Your task to perform on an android device: open app "Microsoft Excel" (install if not already installed) and go to login screen Image 0: 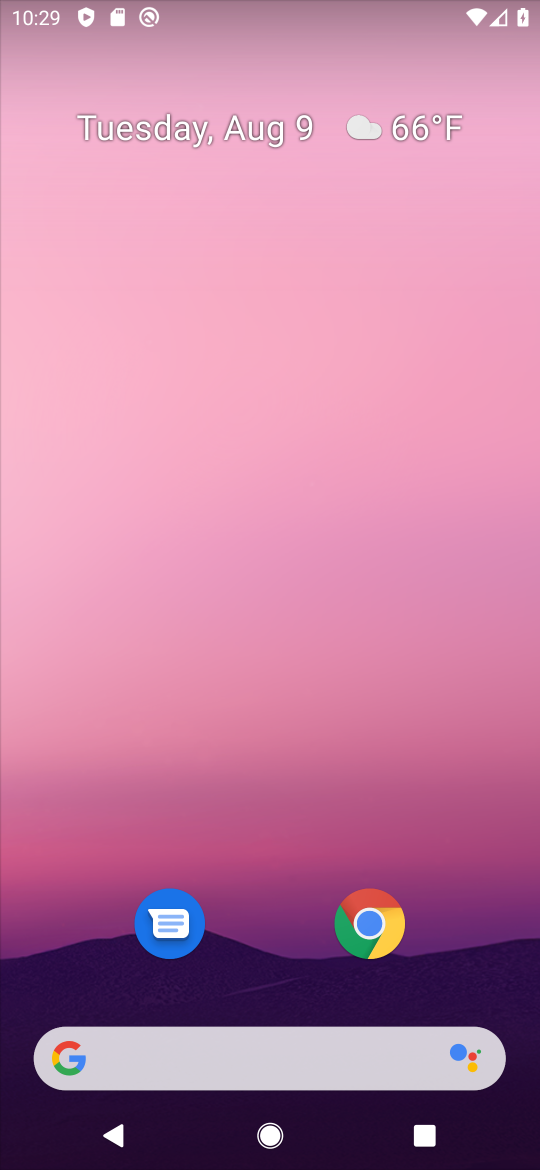
Step 0: press home button
Your task to perform on an android device: open app "Microsoft Excel" (install if not already installed) and go to login screen Image 1: 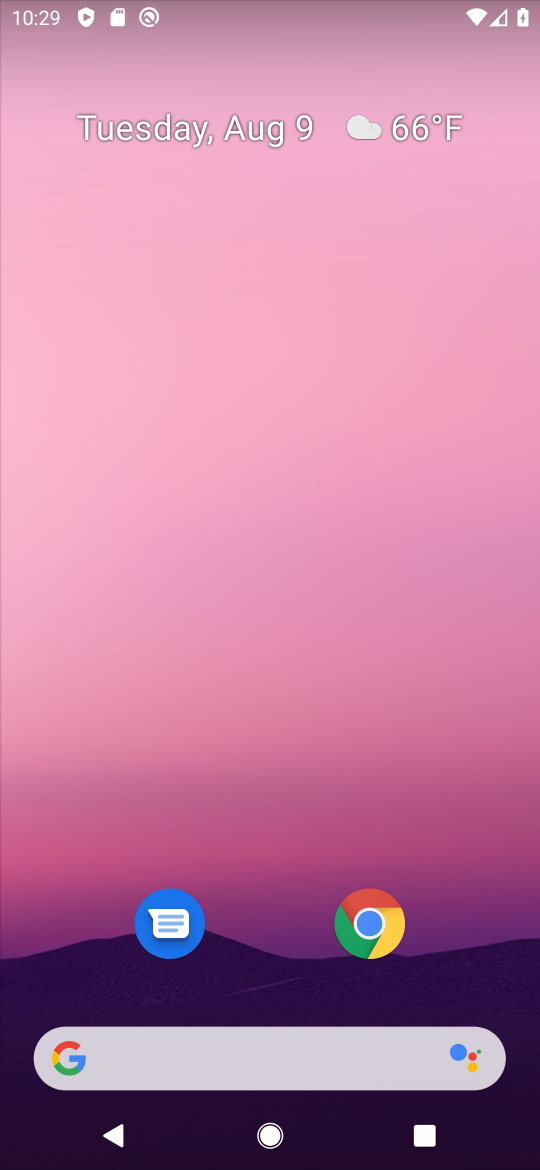
Step 1: drag from (284, 994) to (299, 138)
Your task to perform on an android device: open app "Microsoft Excel" (install if not already installed) and go to login screen Image 2: 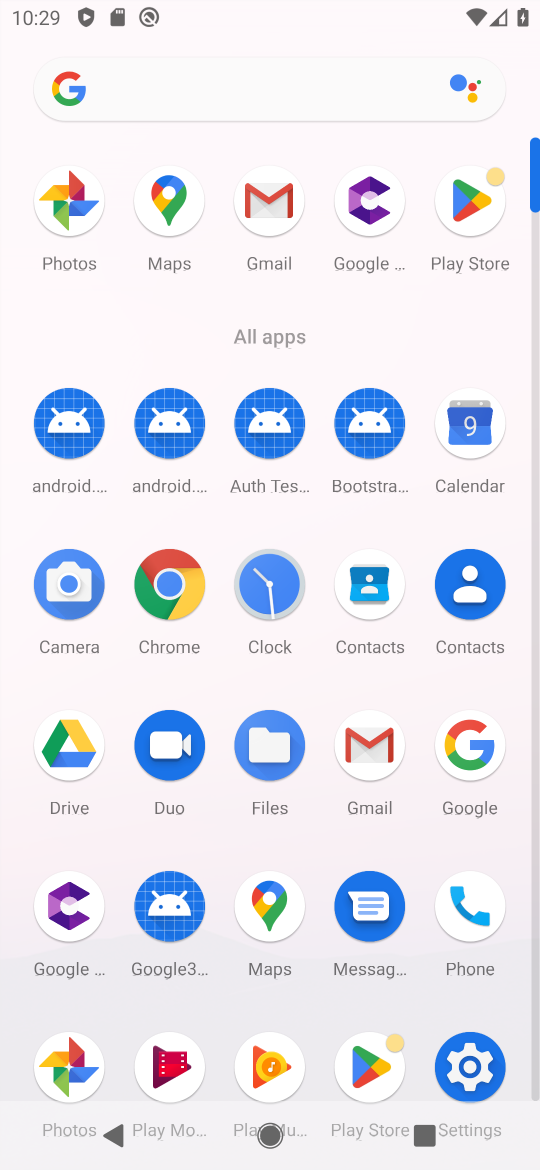
Step 2: click (460, 191)
Your task to perform on an android device: open app "Microsoft Excel" (install if not already installed) and go to login screen Image 3: 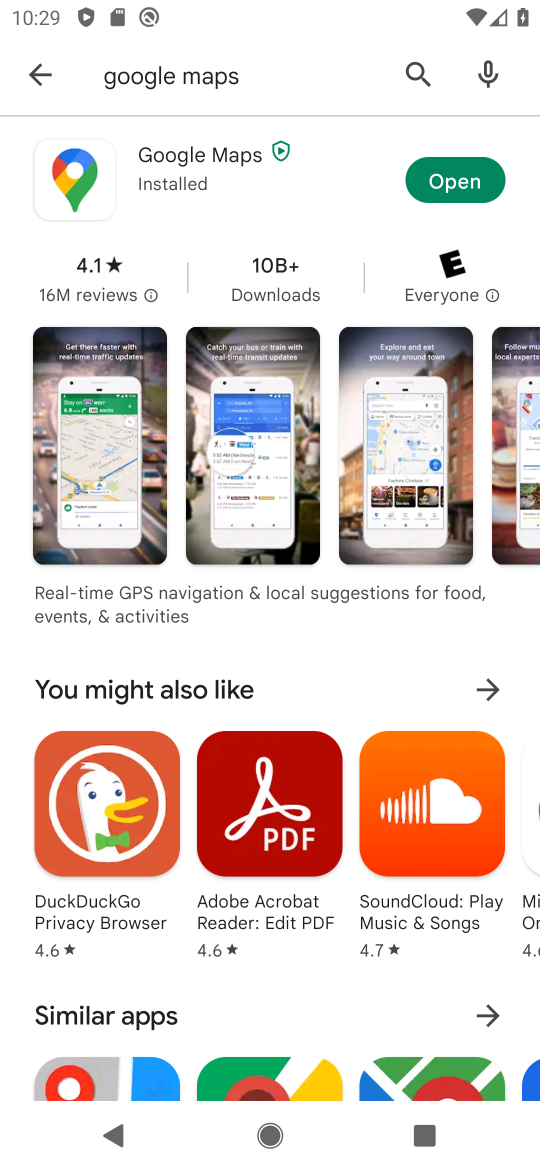
Step 3: click (413, 73)
Your task to perform on an android device: open app "Microsoft Excel" (install if not already installed) and go to login screen Image 4: 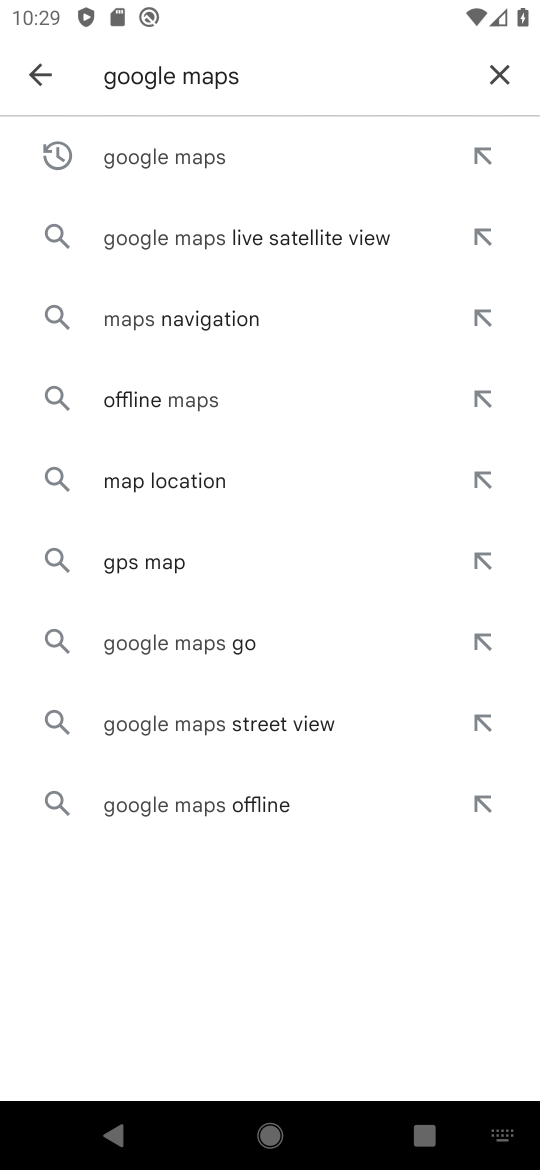
Step 4: click (497, 73)
Your task to perform on an android device: open app "Microsoft Excel" (install if not already installed) and go to login screen Image 5: 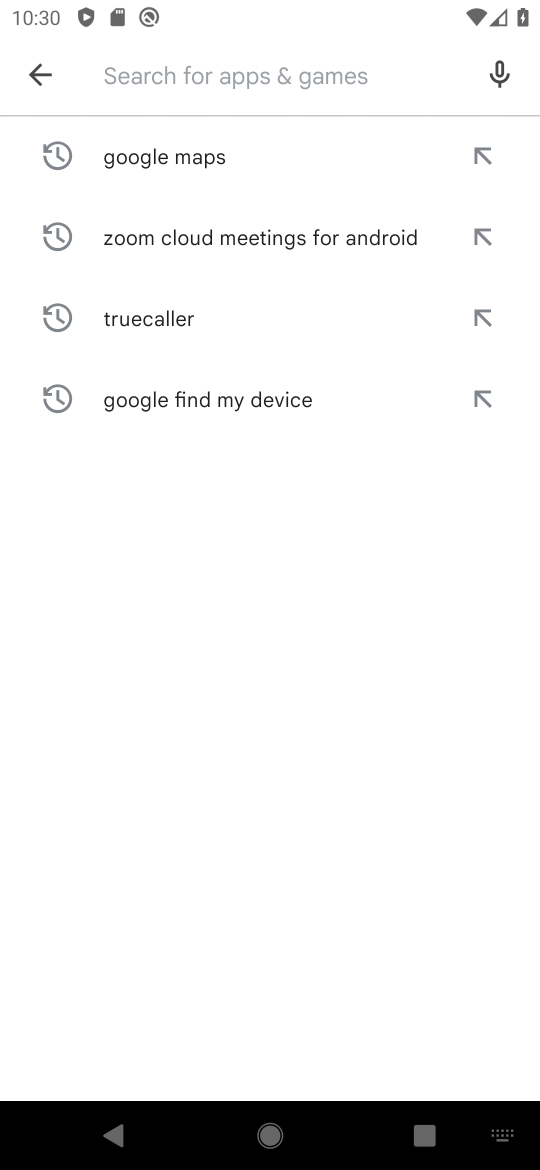
Step 5: type "microsoft excel"
Your task to perform on an android device: open app "Microsoft Excel" (install if not already installed) and go to login screen Image 6: 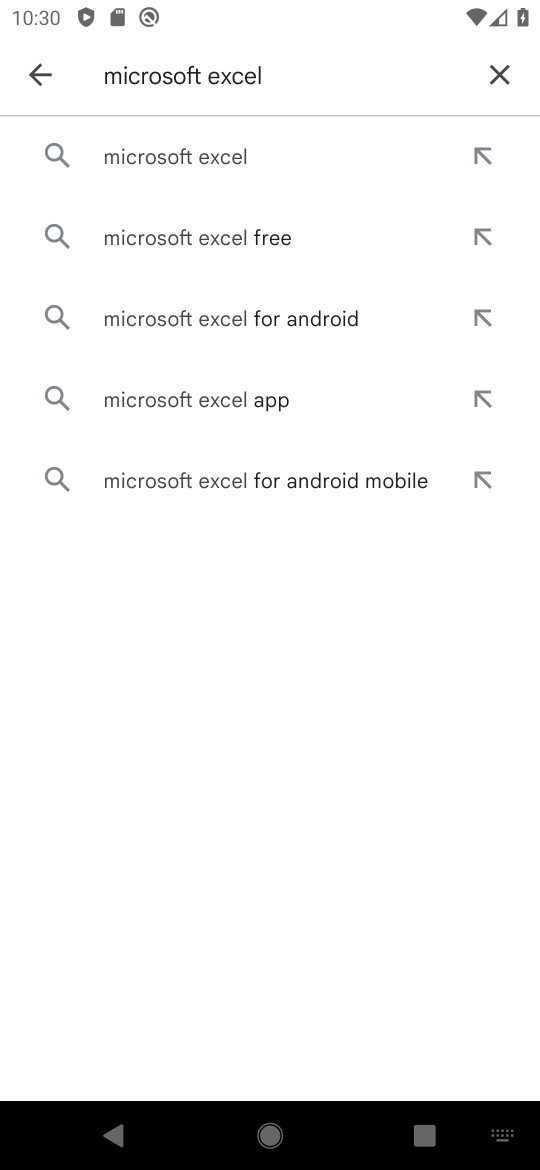
Step 6: click (263, 155)
Your task to perform on an android device: open app "Microsoft Excel" (install if not already installed) and go to login screen Image 7: 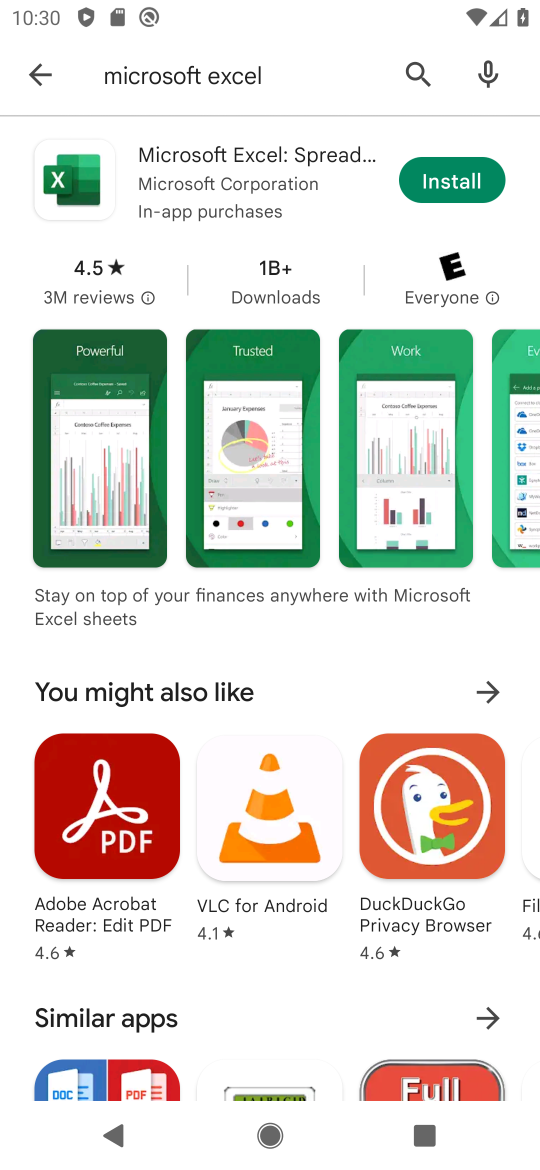
Step 7: click (452, 176)
Your task to perform on an android device: open app "Microsoft Excel" (install if not already installed) and go to login screen Image 8: 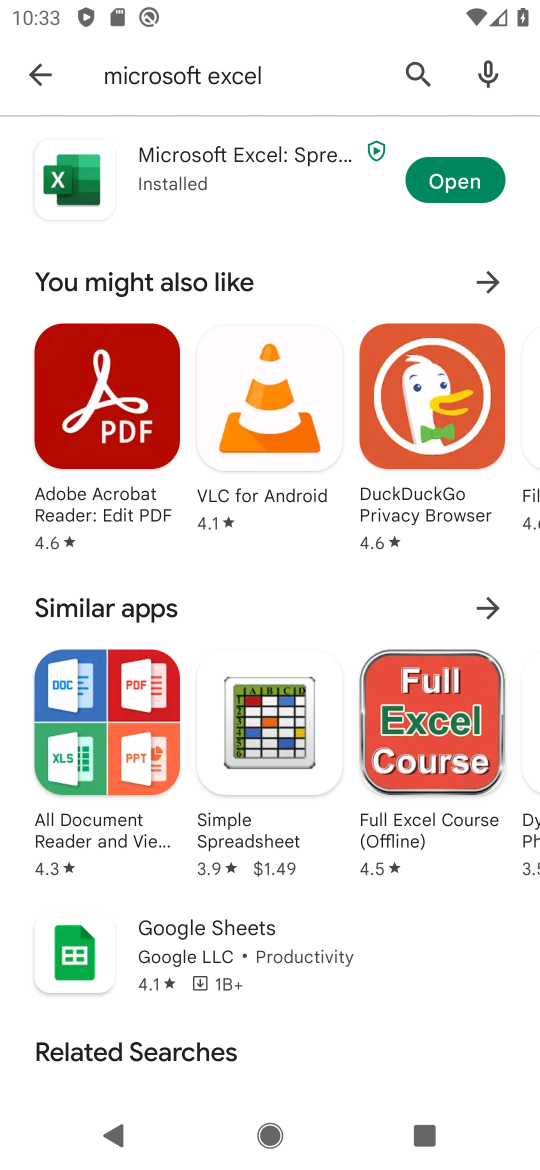
Step 8: click (453, 175)
Your task to perform on an android device: open app "Microsoft Excel" (install if not already installed) and go to login screen Image 9: 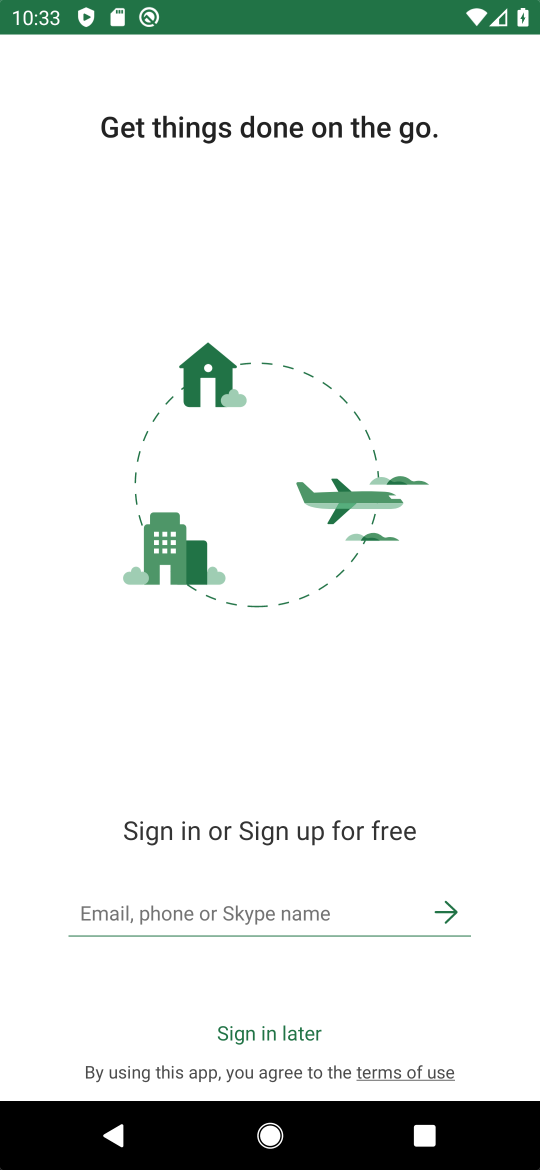
Step 9: task complete